Your task to perform on an android device: Go to Android settings Image 0: 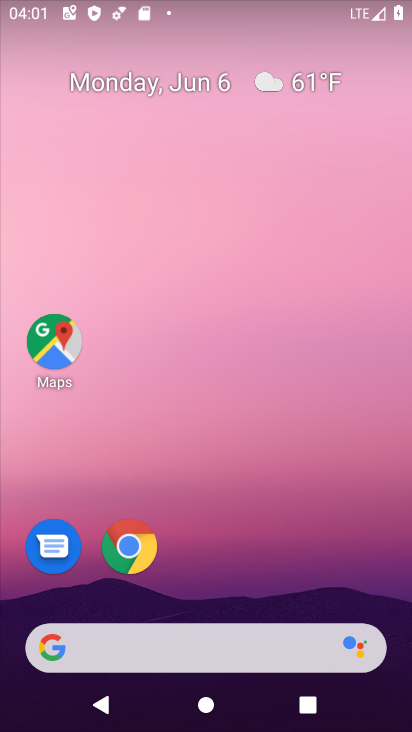
Step 0: press home button
Your task to perform on an android device: Go to Android settings Image 1: 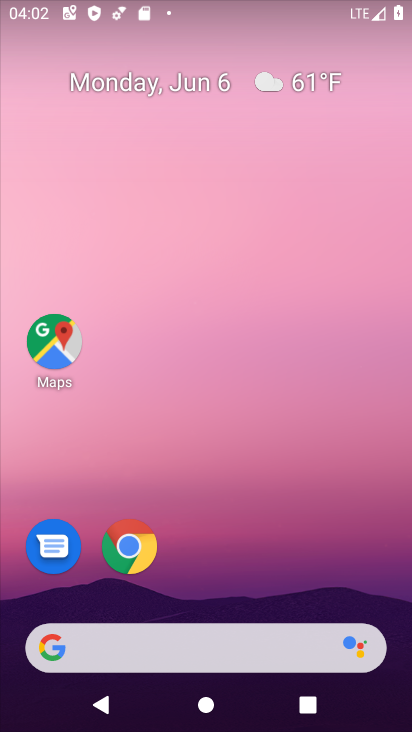
Step 1: drag from (240, 579) to (190, 46)
Your task to perform on an android device: Go to Android settings Image 2: 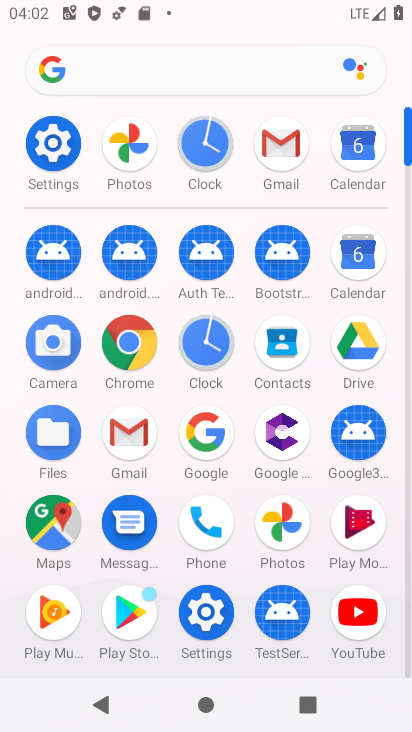
Step 2: click (51, 142)
Your task to perform on an android device: Go to Android settings Image 3: 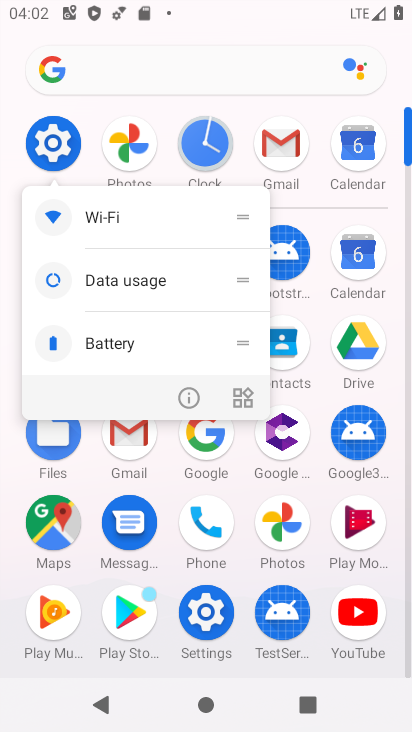
Step 3: click (59, 148)
Your task to perform on an android device: Go to Android settings Image 4: 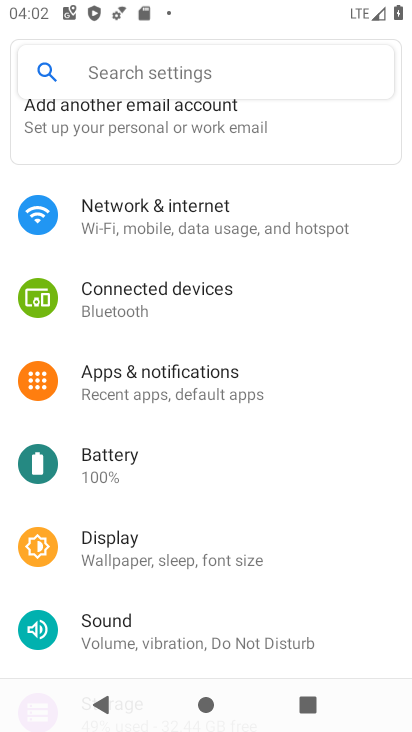
Step 4: task complete